Your task to perform on an android device: open a new tab in the chrome app Image 0: 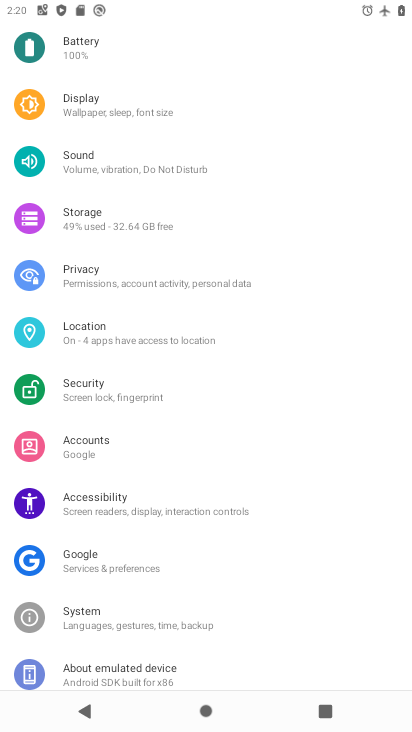
Step 0: press home button
Your task to perform on an android device: open a new tab in the chrome app Image 1: 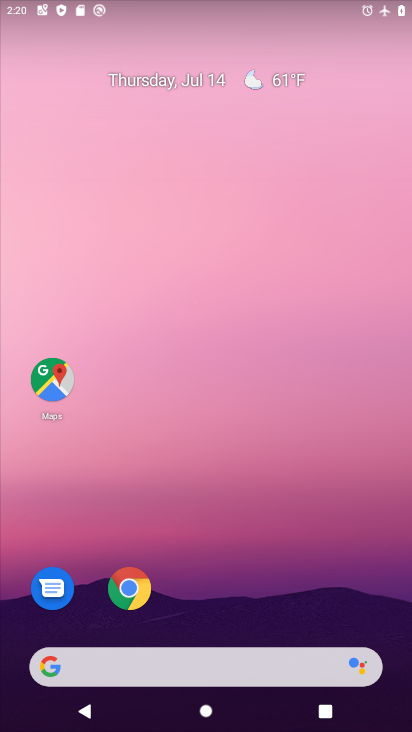
Step 1: drag from (225, 606) to (234, 171)
Your task to perform on an android device: open a new tab in the chrome app Image 2: 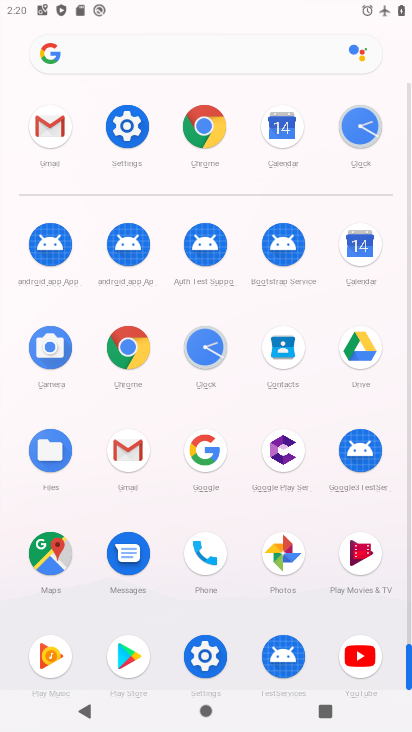
Step 2: click (199, 115)
Your task to perform on an android device: open a new tab in the chrome app Image 3: 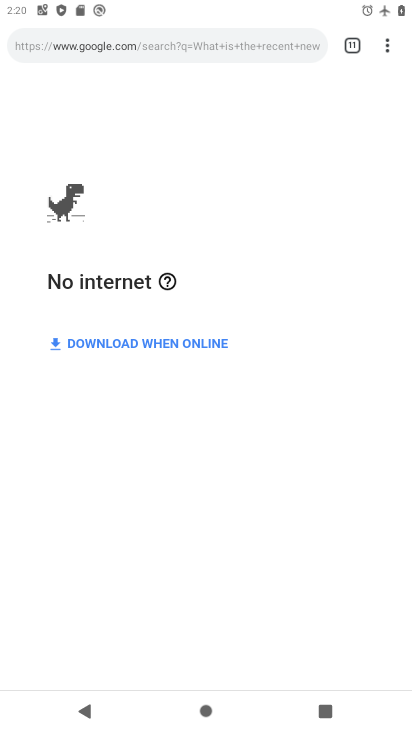
Step 3: click (397, 40)
Your task to perform on an android device: open a new tab in the chrome app Image 4: 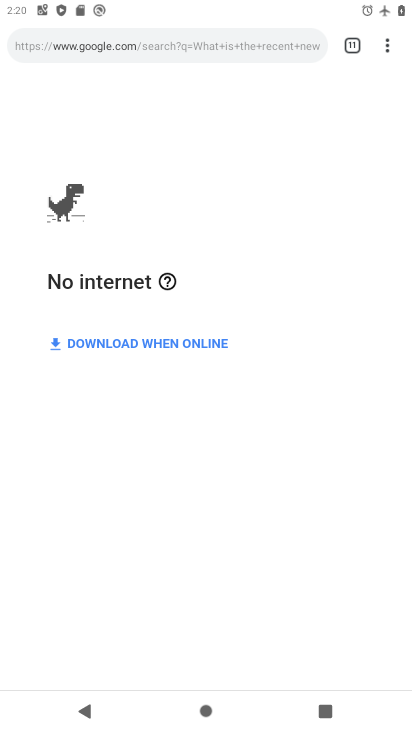
Step 4: click (397, 40)
Your task to perform on an android device: open a new tab in the chrome app Image 5: 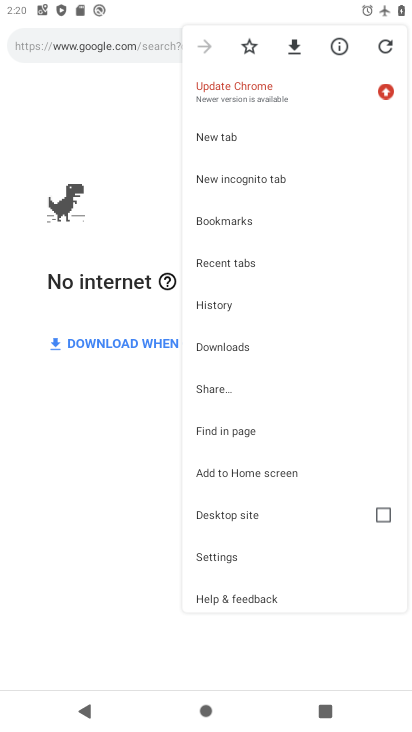
Step 5: click (257, 125)
Your task to perform on an android device: open a new tab in the chrome app Image 6: 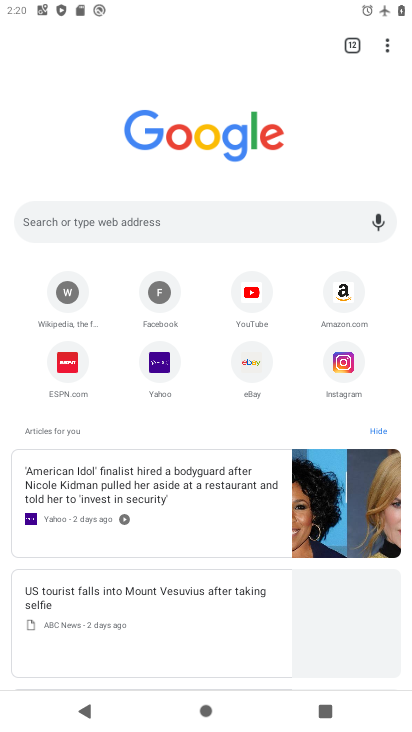
Step 6: task complete